Your task to perform on an android device: turn pop-ups on in chrome Image 0: 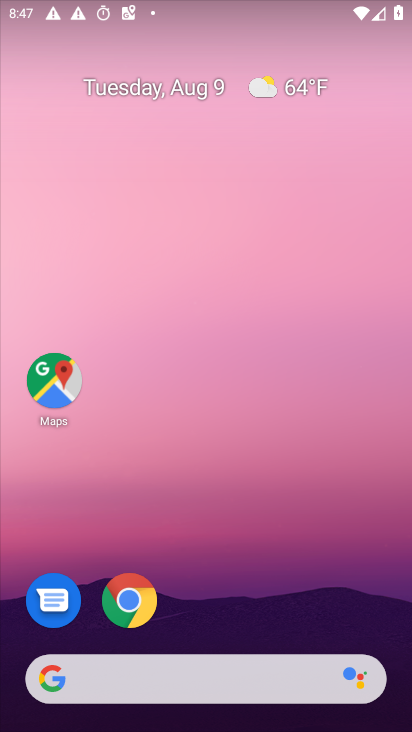
Step 0: press home button
Your task to perform on an android device: turn pop-ups on in chrome Image 1: 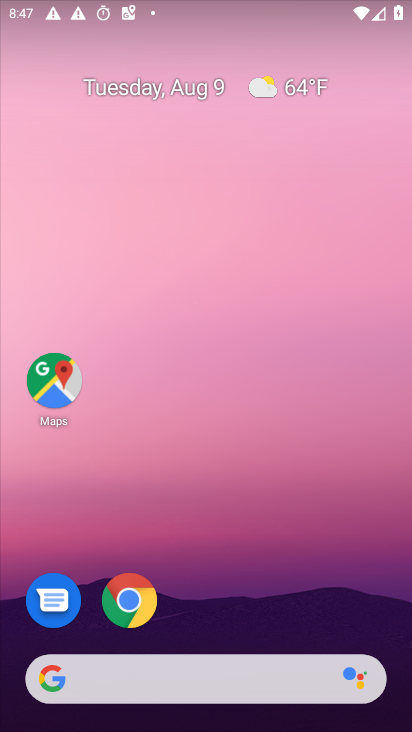
Step 1: click (131, 600)
Your task to perform on an android device: turn pop-ups on in chrome Image 2: 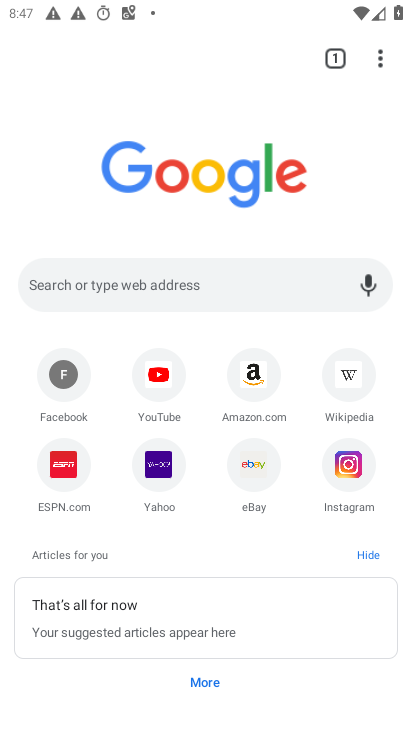
Step 2: drag from (382, 54) to (162, 498)
Your task to perform on an android device: turn pop-ups on in chrome Image 3: 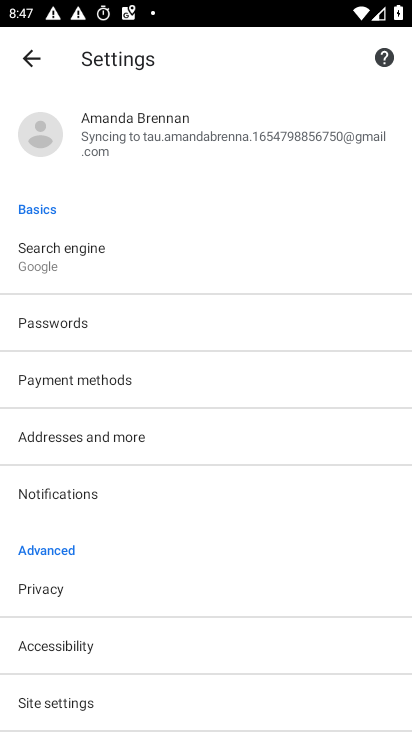
Step 3: click (47, 708)
Your task to perform on an android device: turn pop-ups on in chrome Image 4: 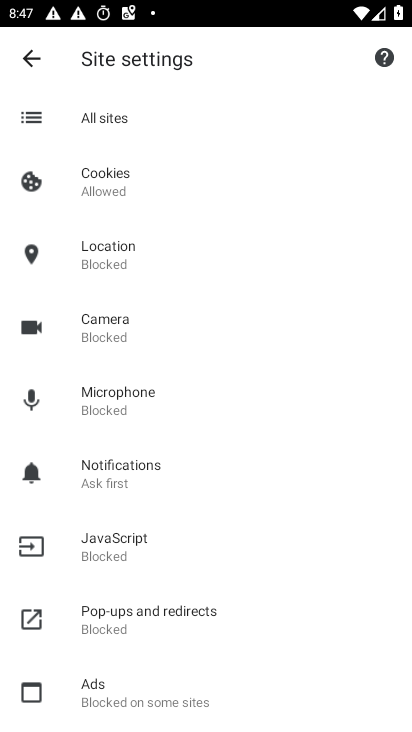
Step 4: click (128, 616)
Your task to perform on an android device: turn pop-ups on in chrome Image 5: 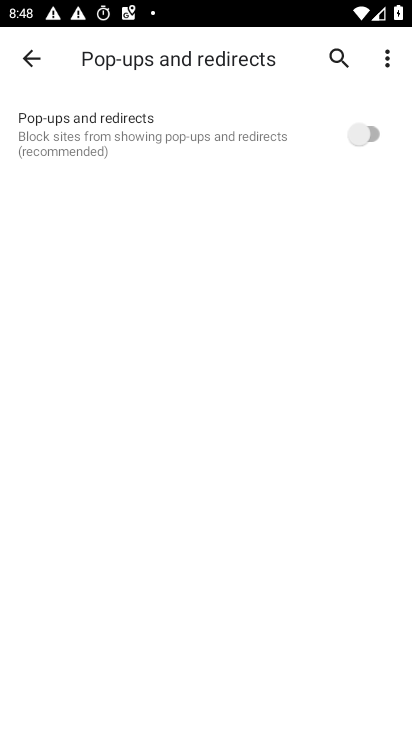
Step 5: click (355, 128)
Your task to perform on an android device: turn pop-ups on in chrome Image 6: 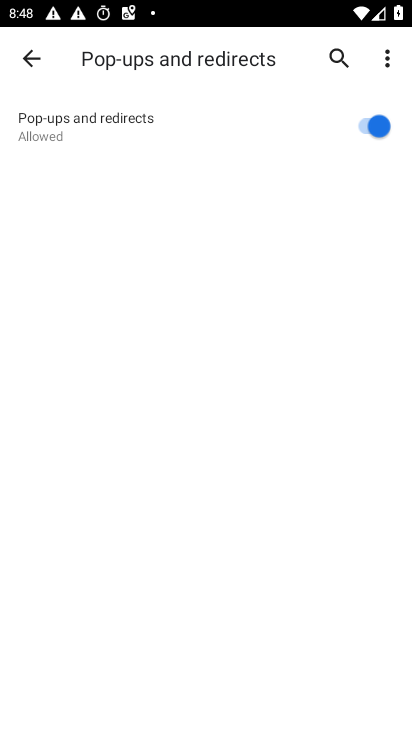
Step 6: task complete